Your task to perform on an android device: Open notification settings Image 0: 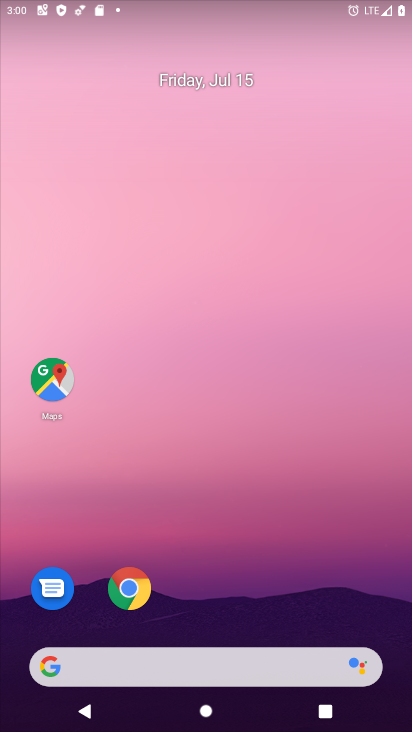
Step 0: drag from (185, 674) to (205, 221)
Your task to perform on an android device: Open notification settings Image 1: 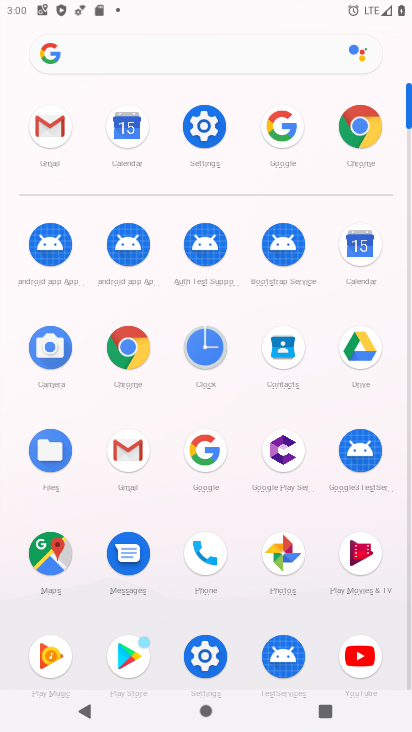
Step 1: click (204, 127)
Your task to perform on an android device: Open notification settings Image 2: 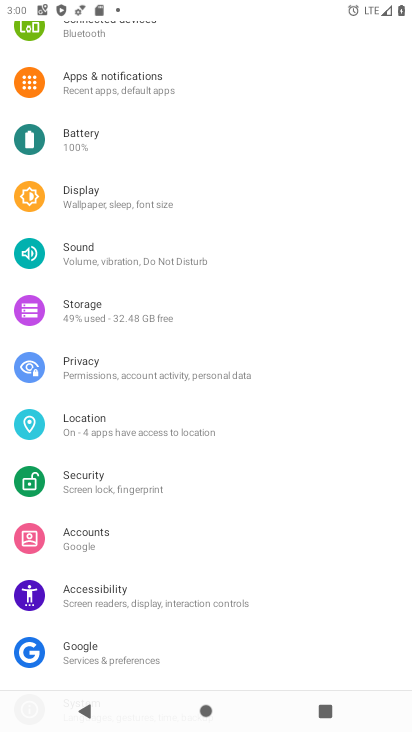
Step 2: click (148, 85)
Your task to perform on an android device: Open notification settings Image 3: 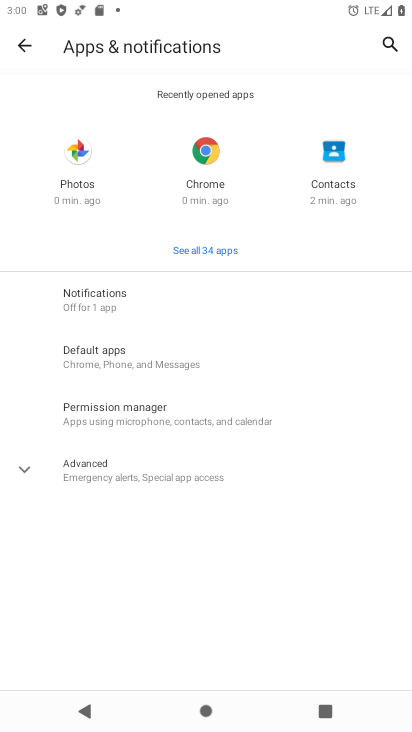
Step 3: click (94, 298)
Your task to perform on an android device: Open notification settings Image 4: 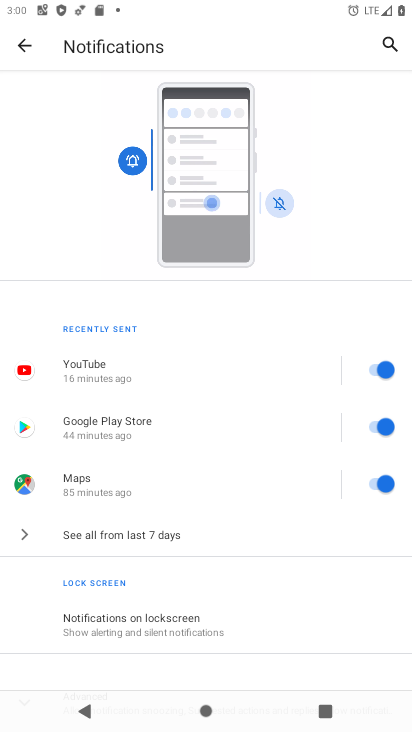
Step 4: task complete